Your task to perform on an android device: Open Chrome and go to settings Image 0: 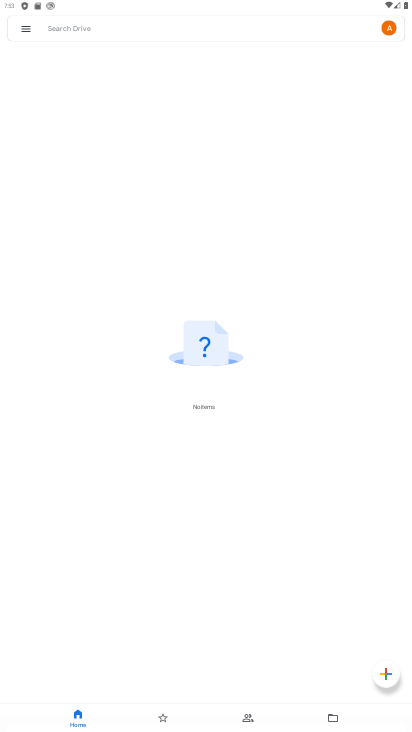
Step 0: press home button
Your task to perform on an android device: Open Chrome and go to settings Image 1: 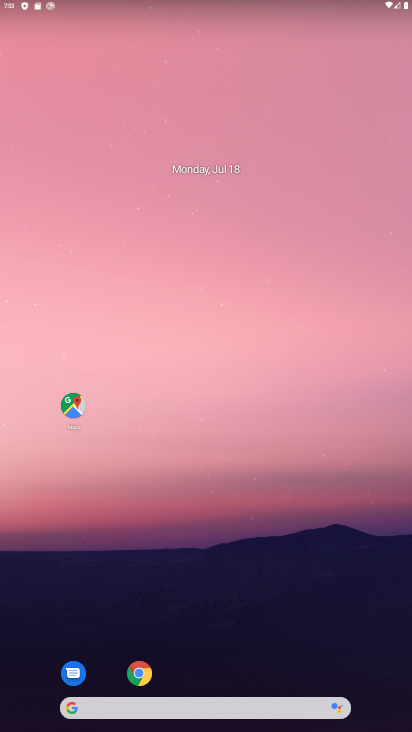
Step 1: click (138, 672)
Your task to perform on an android device: Open Chrome and go to settings Image 2: 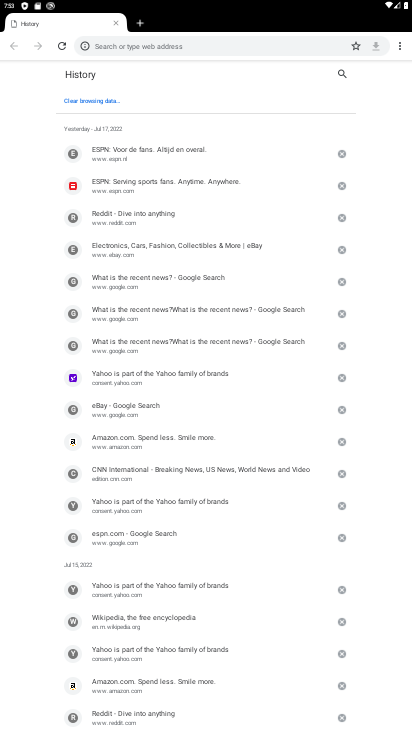
Step 2: click (403, 44)
Your task to perform on an android device: Open Chrome and go to settings Image 3: 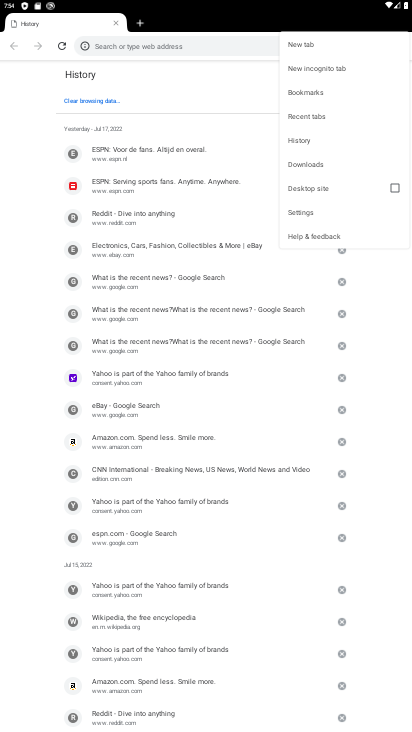
Step 3: click (302, 211)
Your task to perform on an android device: Open Chrome and go to settings Image 4: 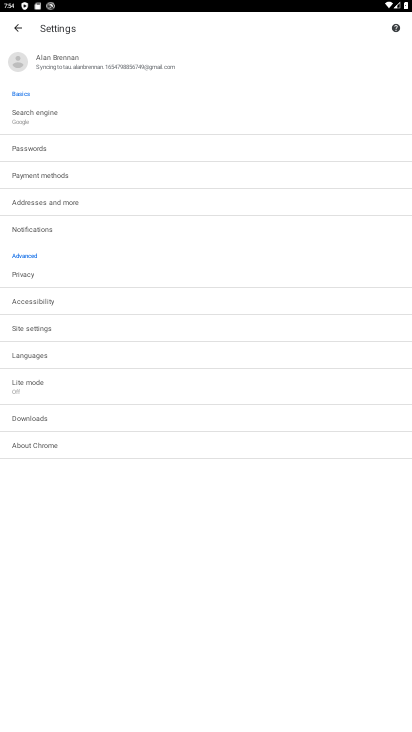
Step 4: task complete